Your task to perform on an android device: Go to accessibility settings Image 0: 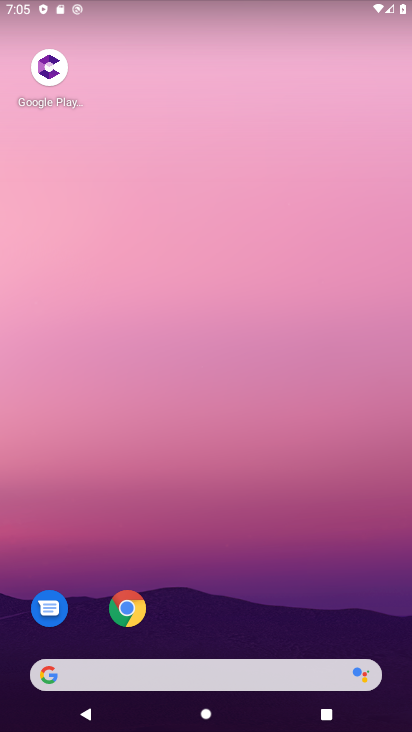
Step 0: drag from (267, 628) to (231, 124)
Your task to perform on an android device: Go to accessibility settings Image 1: 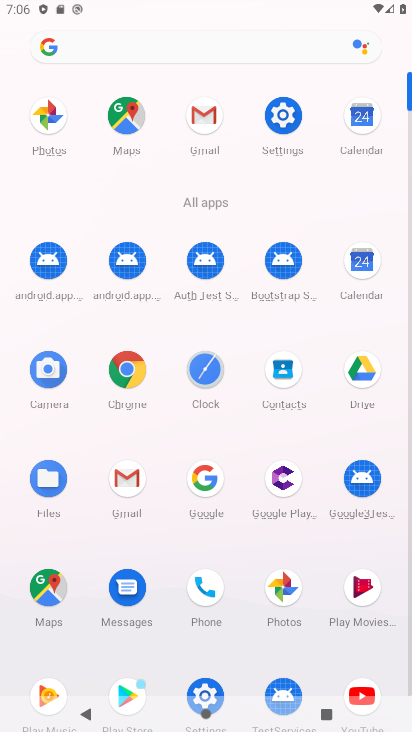
Step 1: click (282, 114)
Your task to perform on an android device: Go to accessibility settings Image 2: 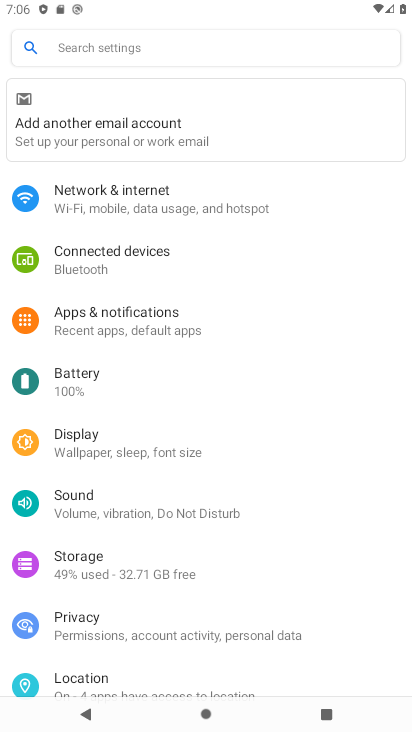
Step 2: drag from (145, 528) to (230, 368)
Your task to perform on an android device: Go to accessibility settings Image 3: 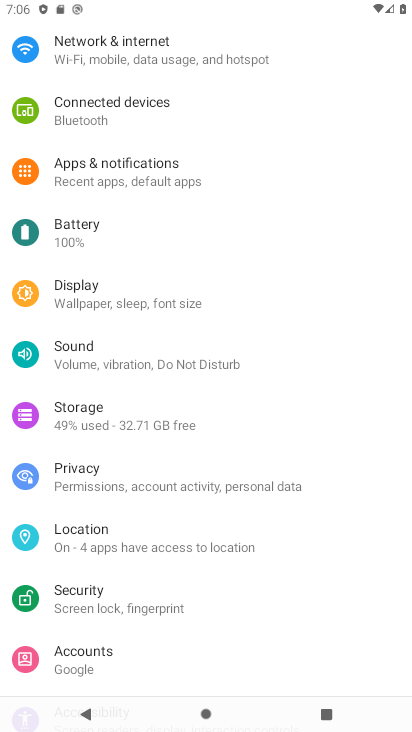
Step 3: drag from (123, 575) to (265, 369)
Your task to perform on an android device: Go to accessibility settings Image 4: 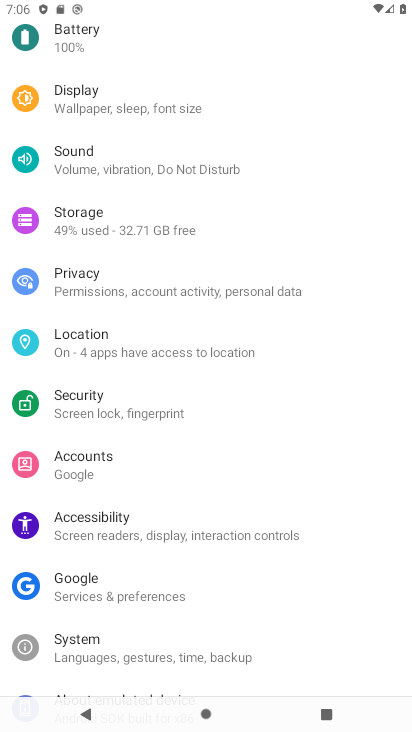
Step 4: click (116, 524)
Your task to perform on an android device: Go to accessibility settings Image 5: 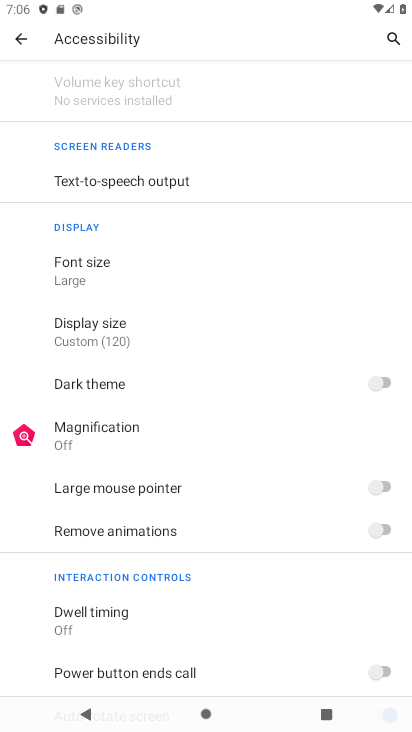
Step 5: task complete